Your task to perform on an android device: Show me popular videos on Youtube Image 0: 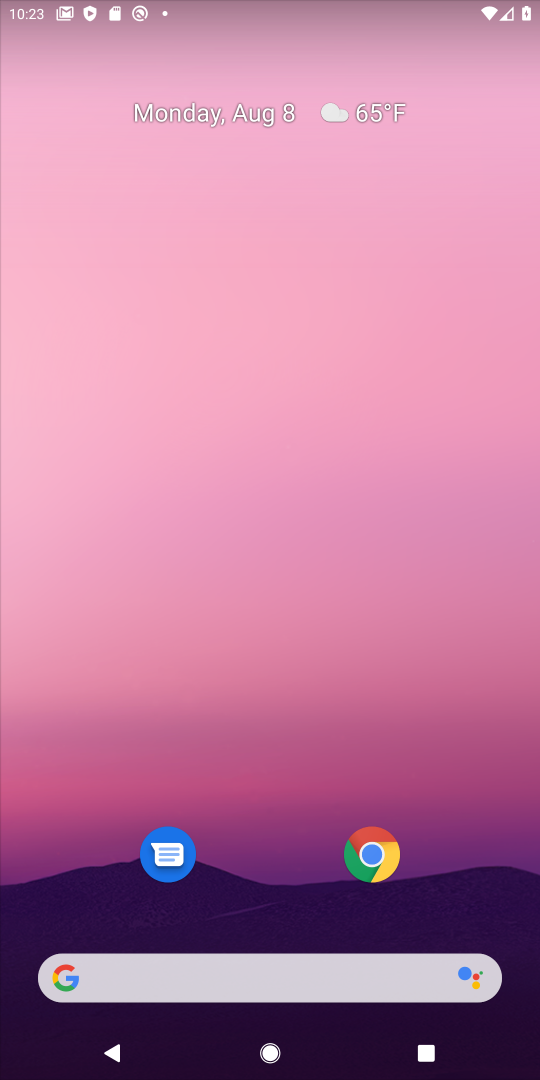
Step 0: drag from (275, 899) to (255, 31)
Your task to perform on an android device: Show me popular videos on Youtube Image 1: 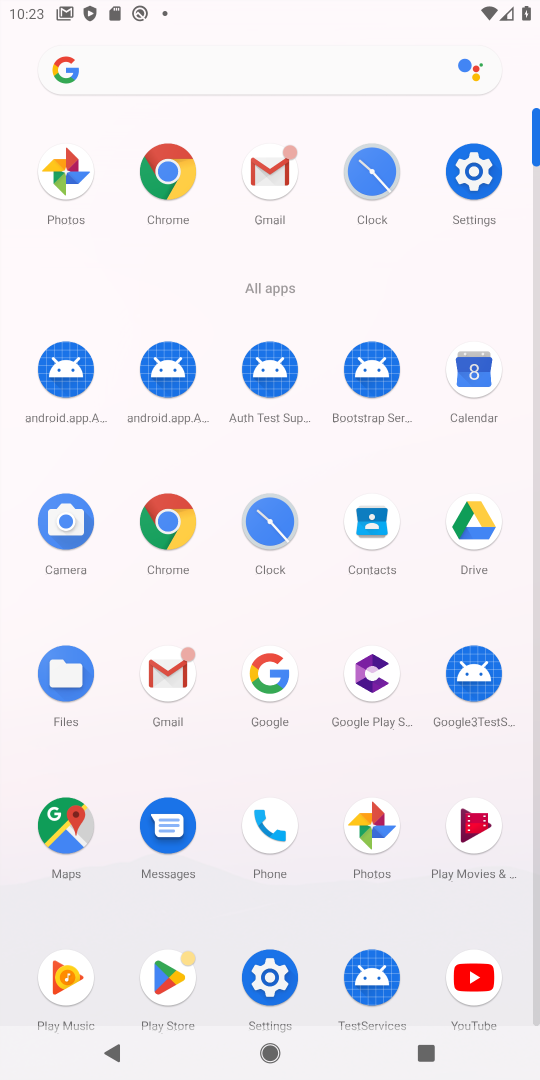
Step 1: click (453, 975)
Your task to perform on an android device: Show me popular videos on Youtube Image 2: 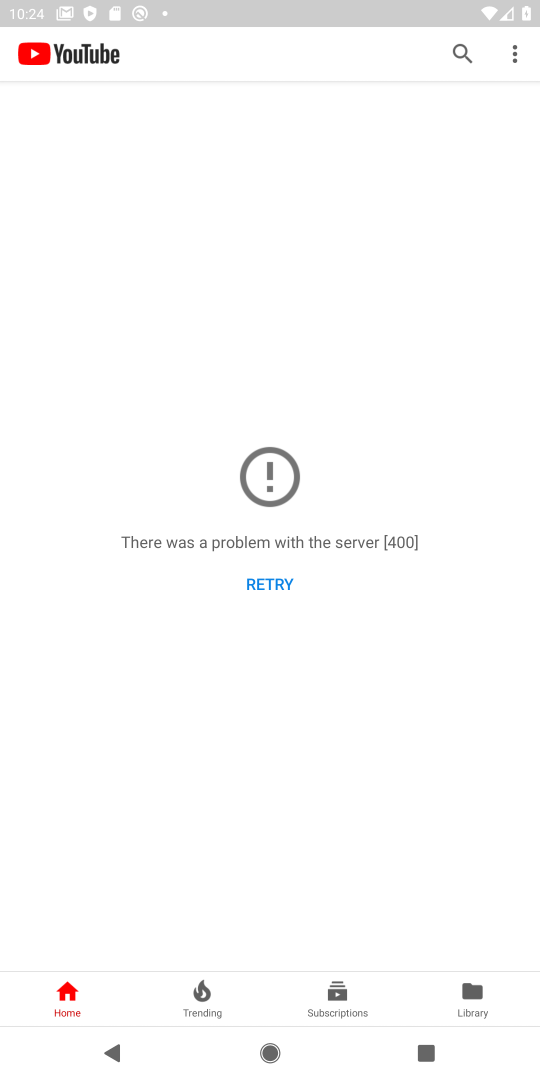
Step 2: click (248, 590)
Your task to perform on an android device: Show me popular videos on Youtube Image 3: 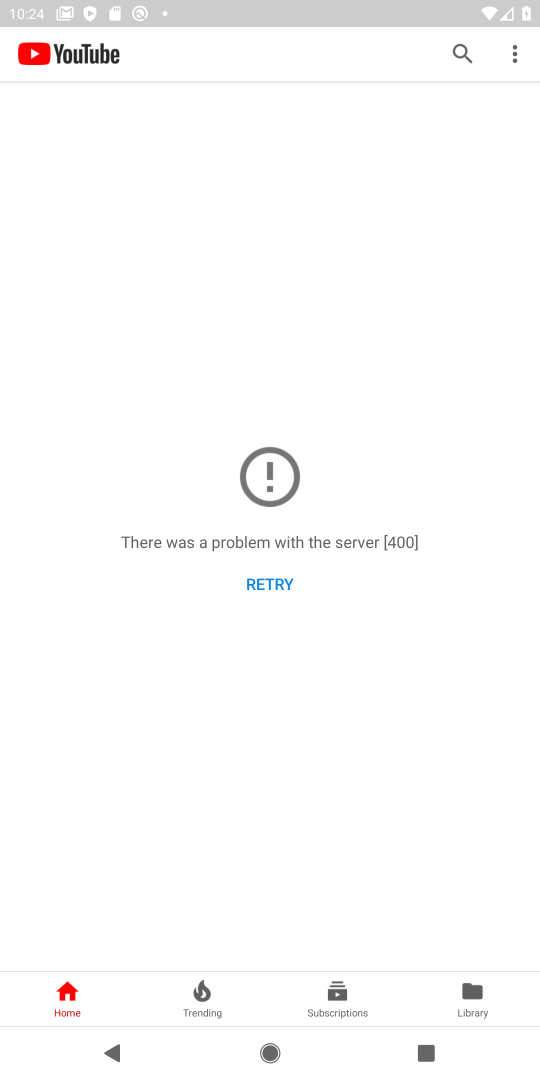
Step 3: click (261, 578)
Your task to perform on an android device: Show me popular videos on Youtube Image 4: 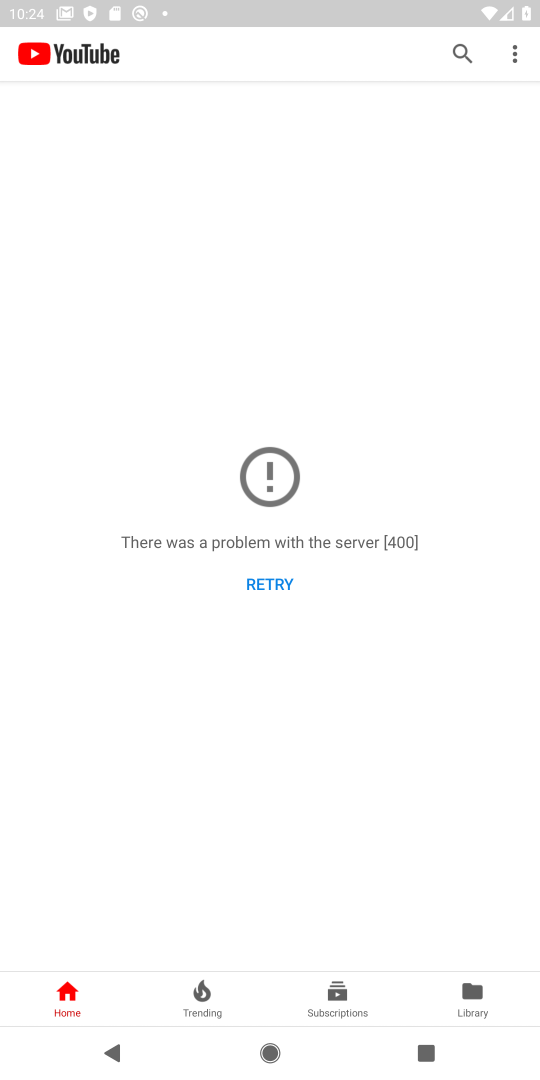
Step 4: click (261, 578)
Your task to perform on an android device: Show me popular videos on Youtube Image 5: 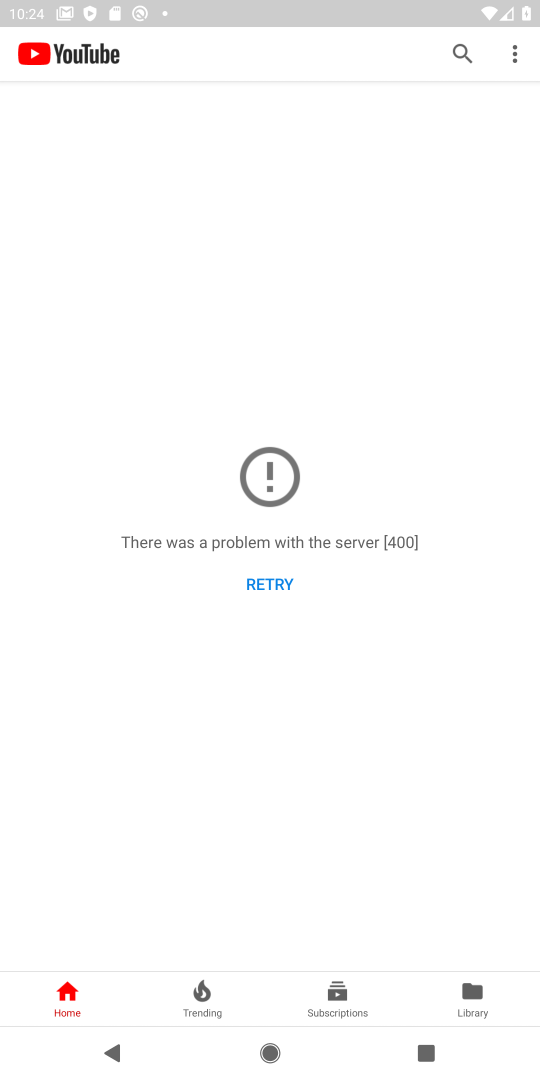
Step 5: click (209, 1000)
Your task to perform on an android device: Show me popular videos on Youtube Image 6: 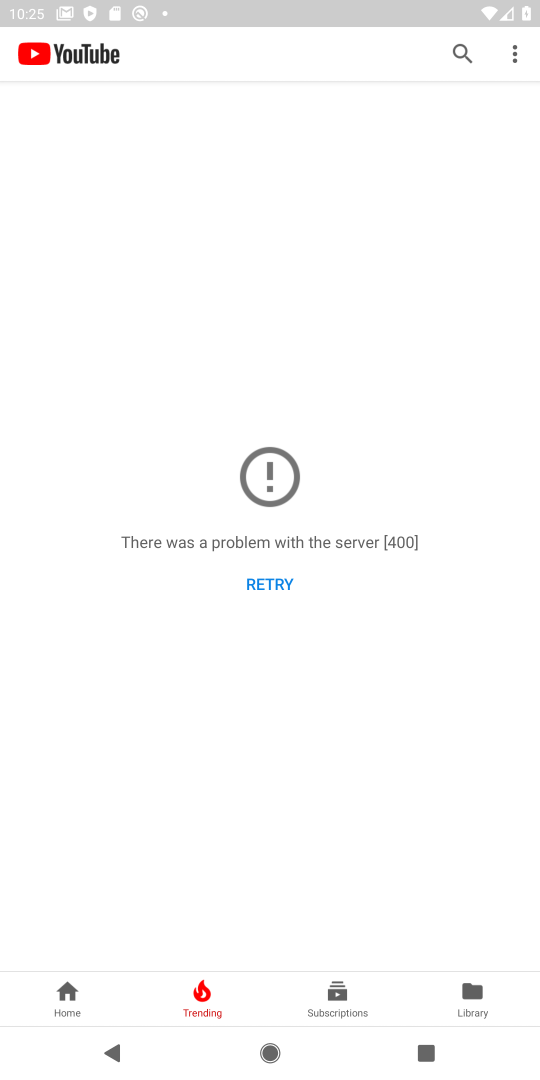
Step 6: click (269, 570)
Your task to perform on an android device: Show me popular videos on Youtube Image 7: 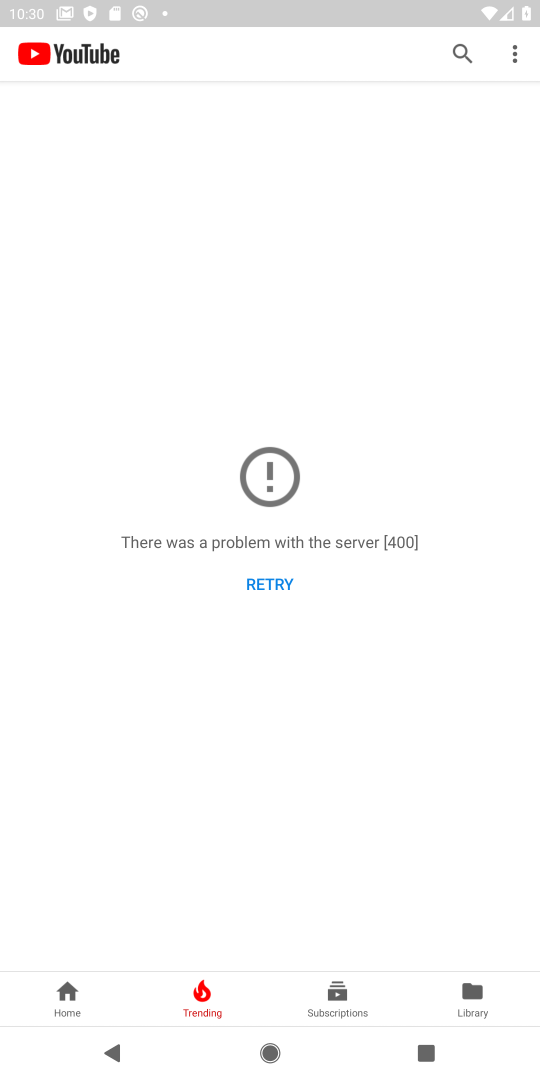
Step 7: task complete